Your task to perform on an android device: Turn on the flashlight Image 0: 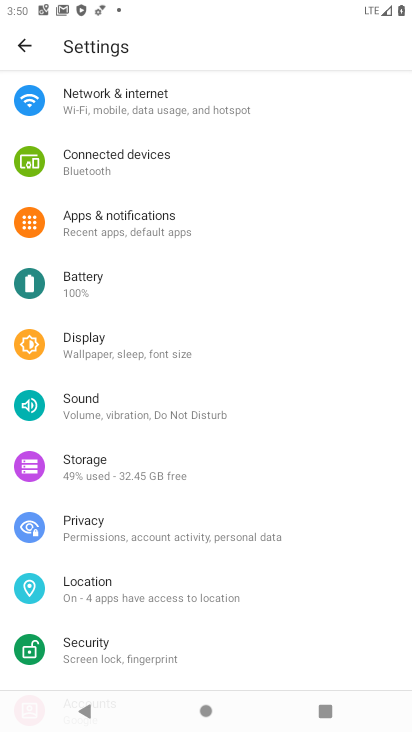
Step 0: click (85, 350)
Your task to perform on an android device: Turn on the flashlight Image 1: 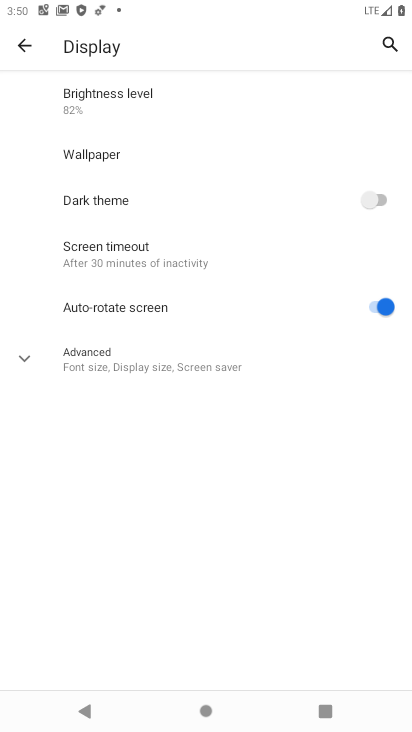
Step 1: task complete